Your task to perform on an android device: Open notification settings Image 0: 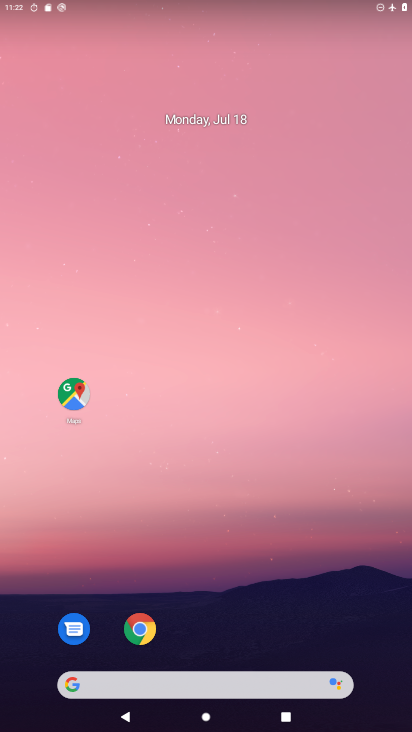
Step 0: drag from (282, 593) to (331, 64)
Your task to perform on an android device: Open notification settings Image 1: 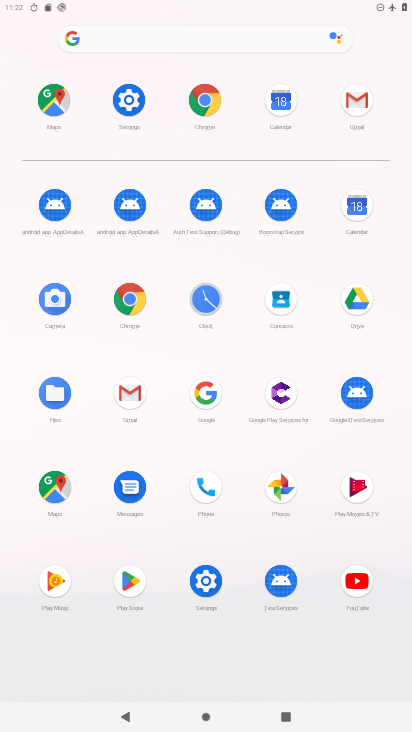
Step 1: click (138, 97)
Your task to perform on an android device: Open notification settings Image 2: 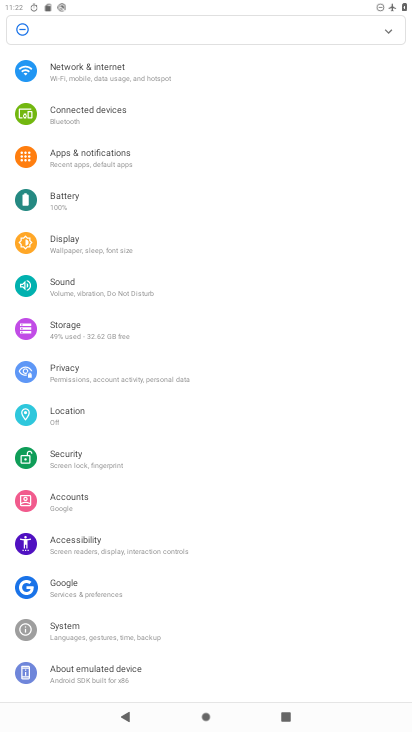
Step 2: click (133, 156)
Your task to perform on an android device: Open notification settings Image 3: 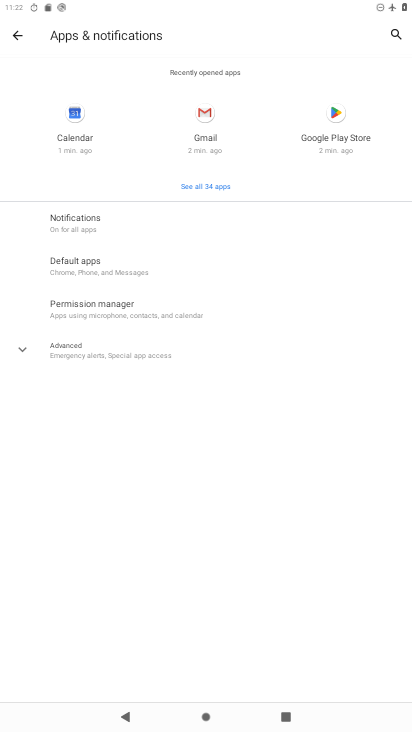
Step 3: click (94, 215)
Your task to perform on an android device: Open notification settings Image 4: 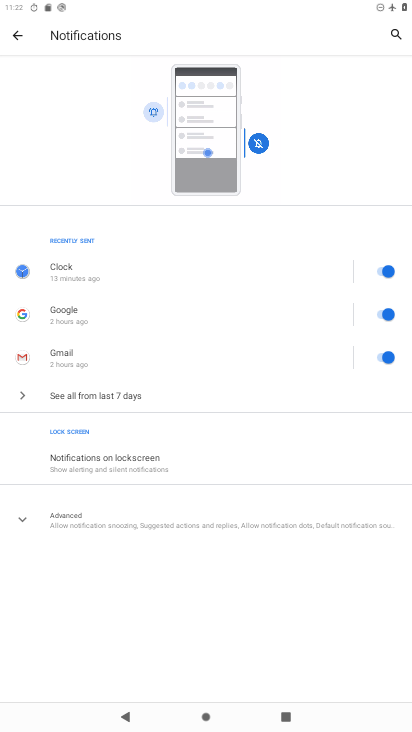
Step 4: task complete